Your task to perform on an android device: Open CNN.com Image 0: 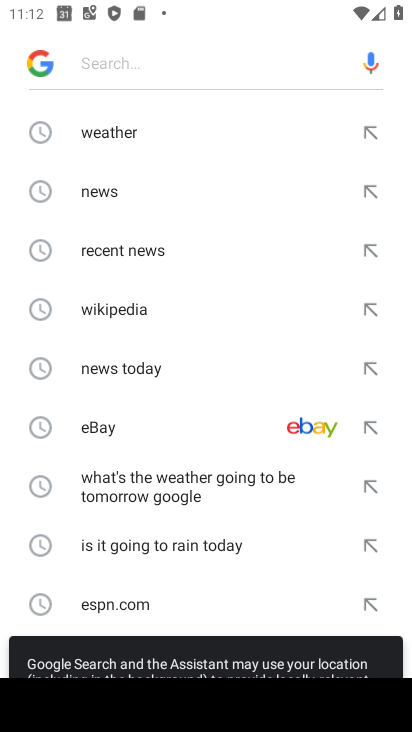
Step 0: press home button
Your task to perform on an android device: Open CNN.com Image 1: 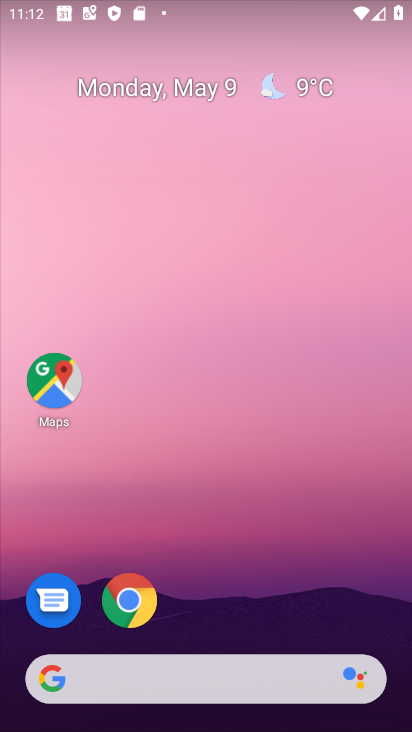
Step 1: drag from (321, 607) to (352, 143)
Your task to perform on an android device: Open CNN.com Image 2: 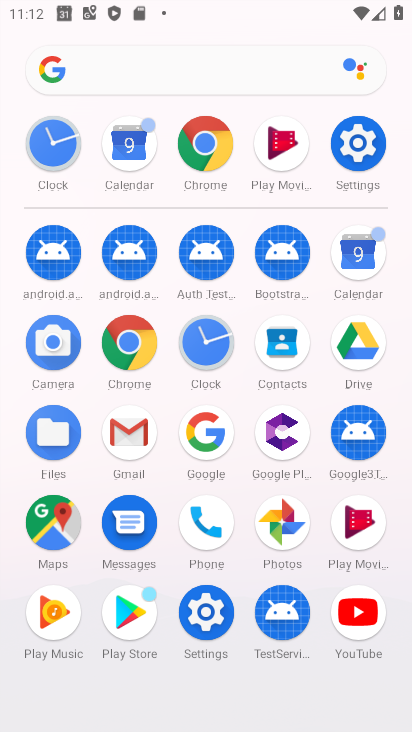
Step 2: click (118, 357)
Your task to perform on an android device: Open CNN.com Image 3: 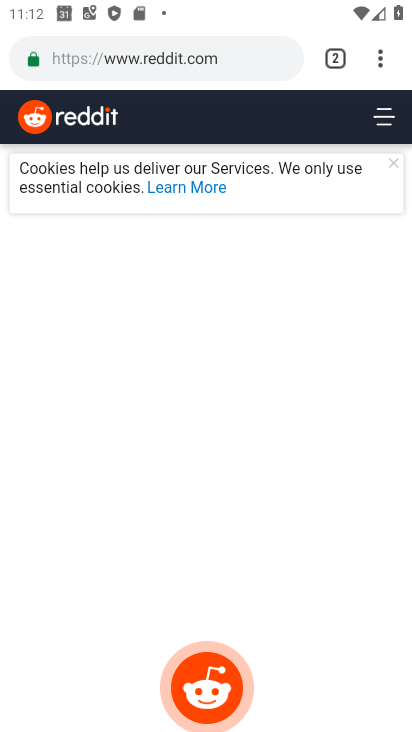
Step 3: click (194, 63)
Your task to perform on an android device: Open CNN.com Image 4: 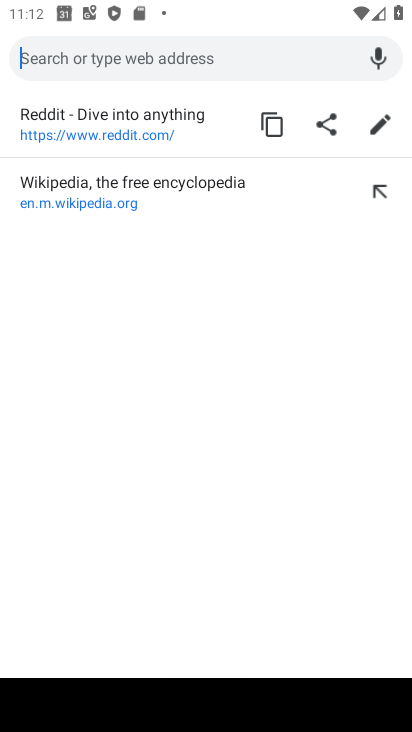
Step 4: type "cnn.com"
Your task to perform on an android device: Open CNN.com Image 5: 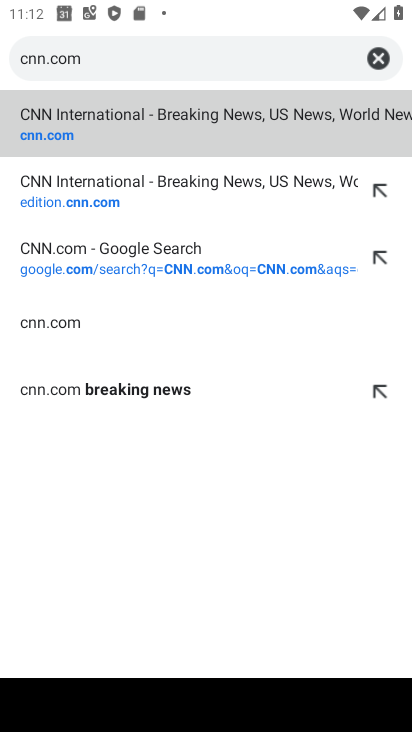
Step 5: click (102, 116)
Your task to perform on an android device: Open CNN.com Image 6: 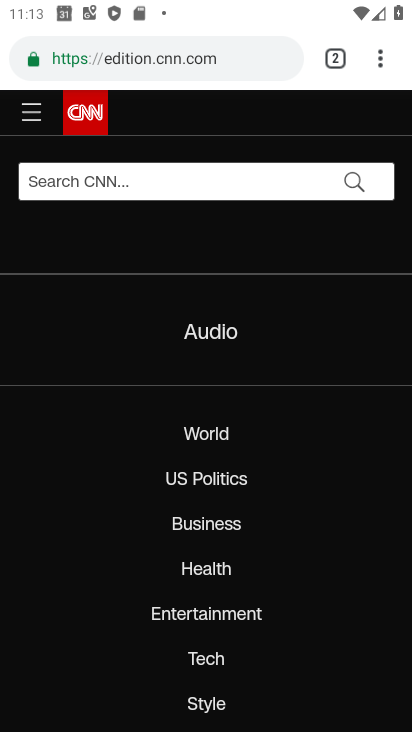
Step 6: task complete